Your task to perform on an android device: Check the news Image 0: 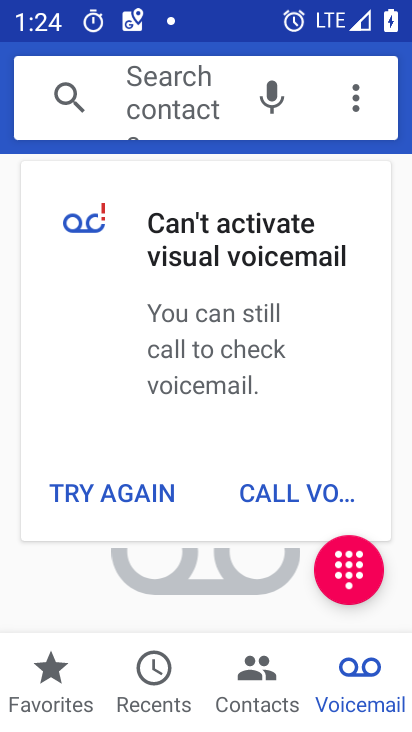
Step 0: press home button
Your task to perform on an android device: Check the news Image 1: 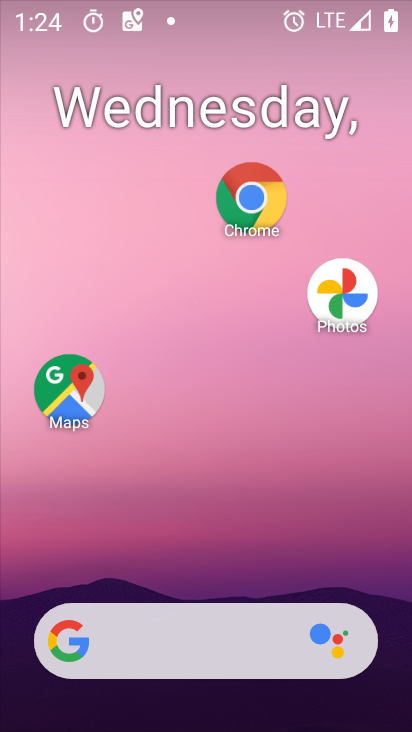
Step 1: drag from (247, 654) to (349, 236)
Your task to perform on an android device: Check the news Image 2: 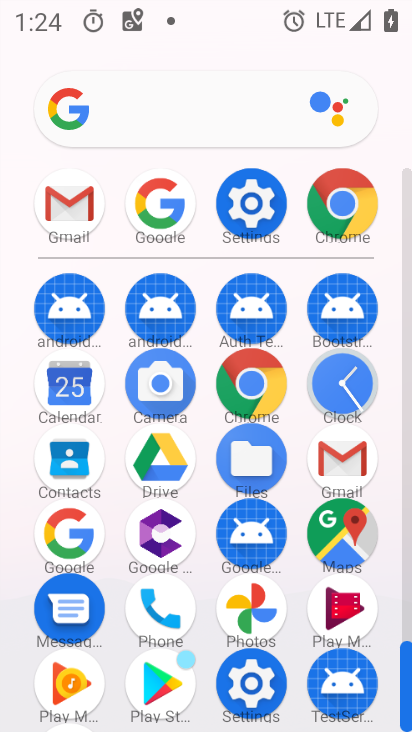
Step 2: click (90, 535)
Your task to perform on an android device: Check the news Image 3: 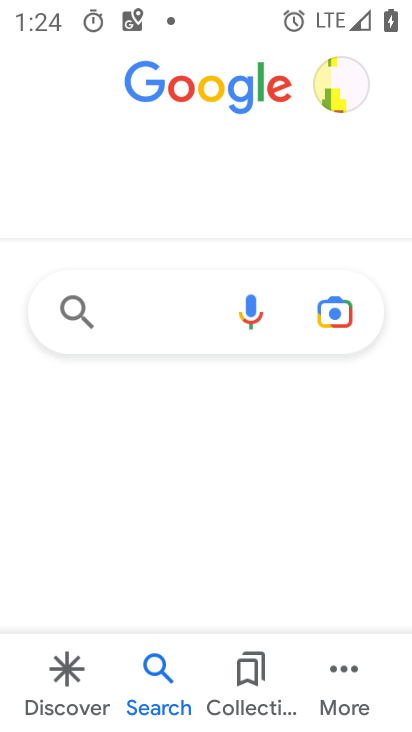
Step 3: click (184, 322)
Your task to perform on an android device: Check the news Image 4: 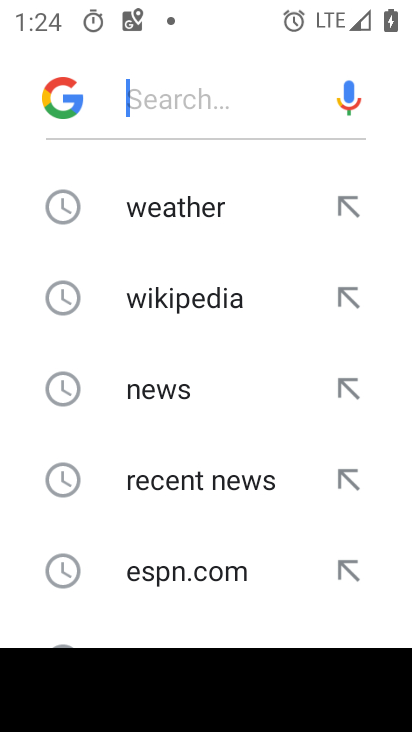
Step 4: click (198, 390)
Your task to perform on an android device: Check the news Image 5: 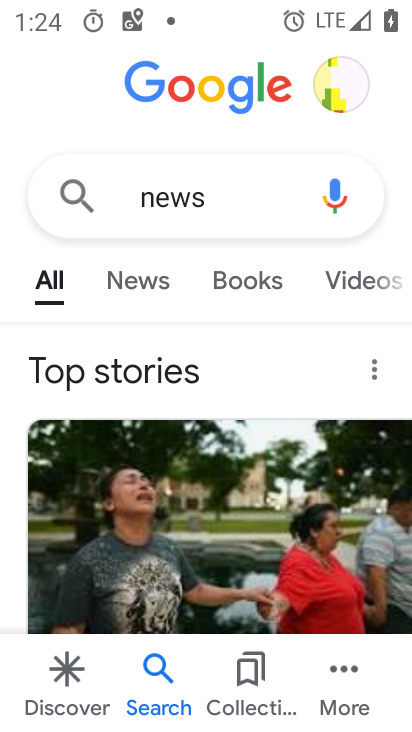
Step 5: click (145, 278)
Your task to perform on an android device: Check the news Image 6: 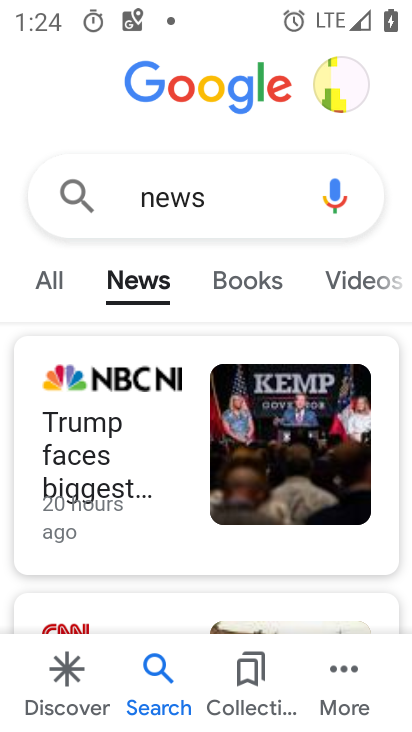
Step 6: task complete